Your task to perform on an android device: open a bookmark in the chrome app Image 0: 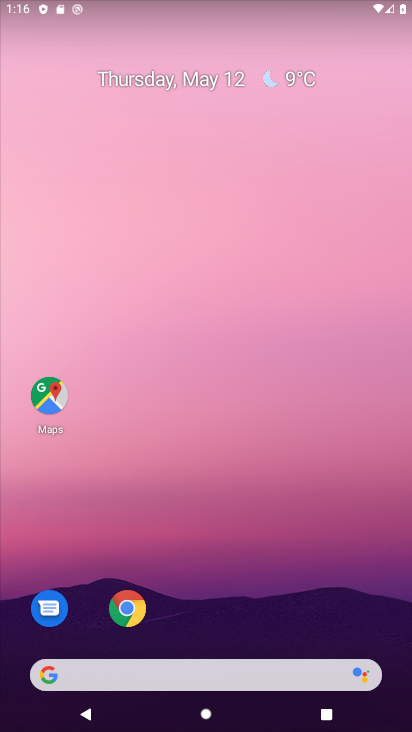
Step 0: drag from (172, 70) to (137, 326)
Your task to perform on an android device: open a bookmark in the chrome app Image 1: 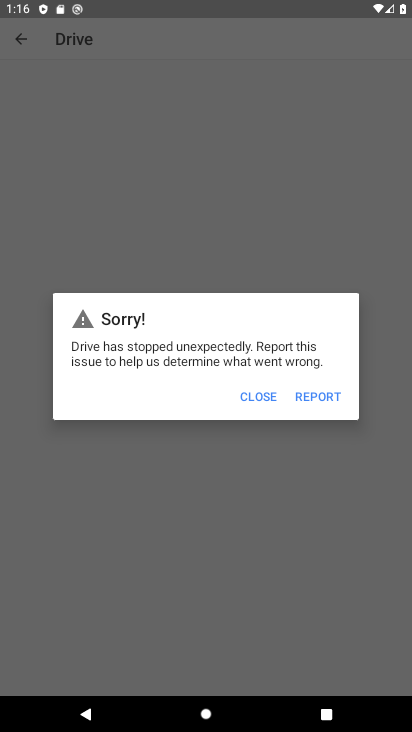
Step 1: press home button
Your task to perform on an android device: open a bookmark in the chrome app Image 2: 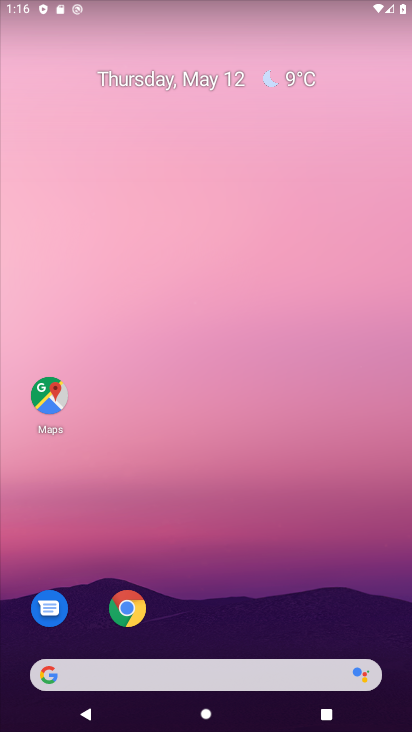
Step 2: click (146, 609)
Your task to perform on an android device: open a bookmark in the chrome app Image 3: 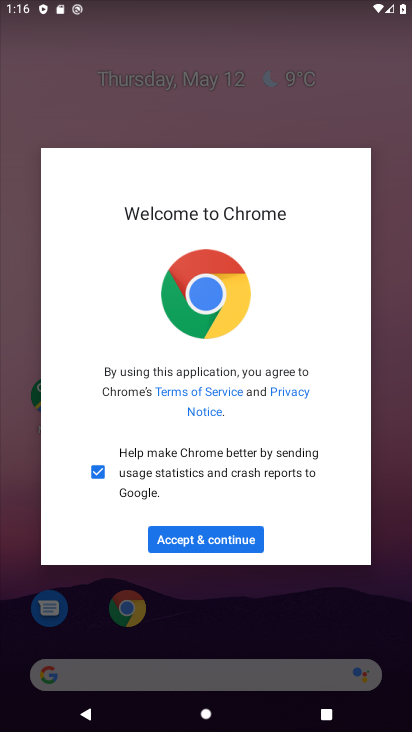
Step 3: click (228, 532)
Your task to perform on an android device: open a bookmark in the chrome app Image 4: 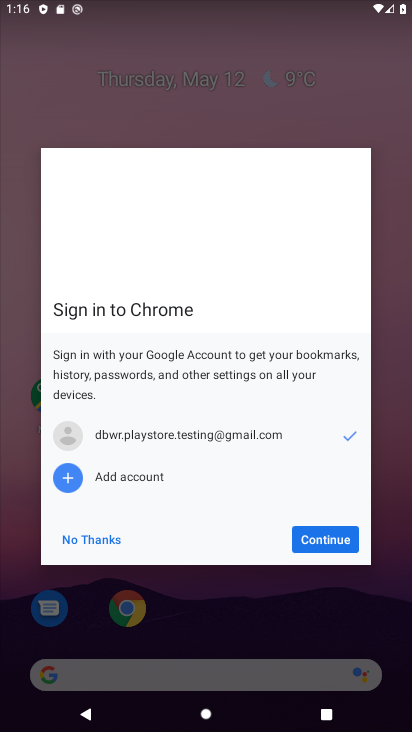
Step 4: click (320, 542)
Your task to perform on an android device: open a bookmark in the chrome app Image 5: 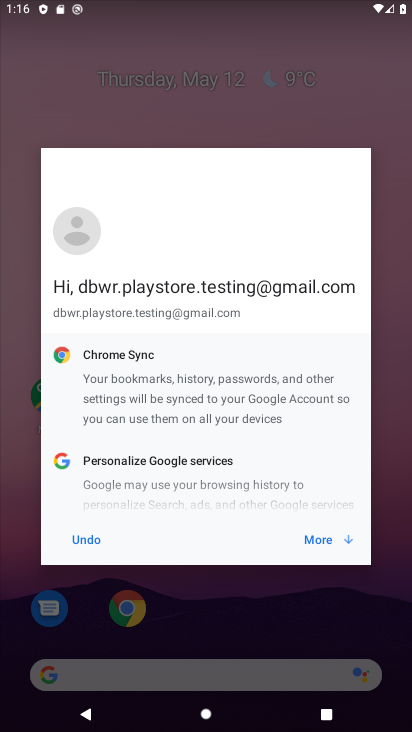
Step 5: click (320, 542)
Your task to perform on an android device: open a bookmark in the chrome app Image 6: 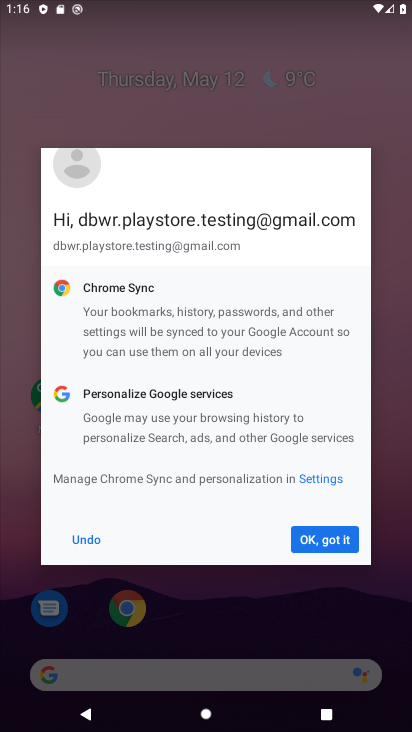
Step 6: click (320, 542)
Your task to perform on an android device: open a bookmark in the chrome app Image 7: 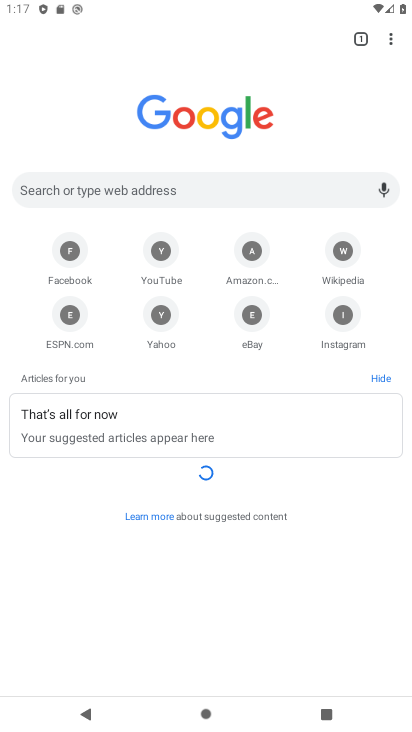
Step 7: click (388, 38)
Your task to perform on an android device: open a bookmark in the chrome app Image 8: 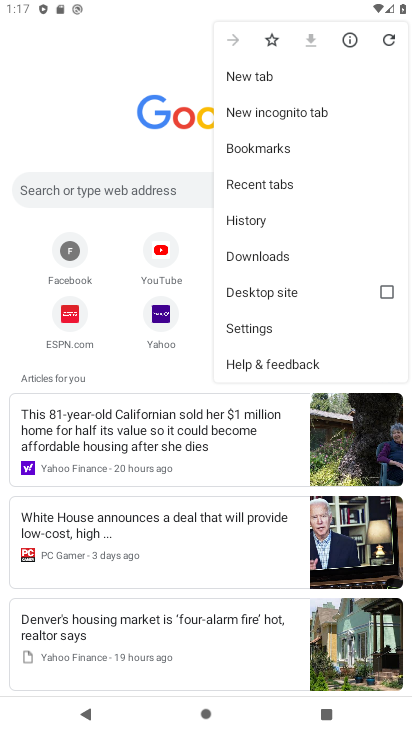
Step 8: click (245, 145)
Your task to perform on an android device: open a bookmark in the chrome app Image 9: 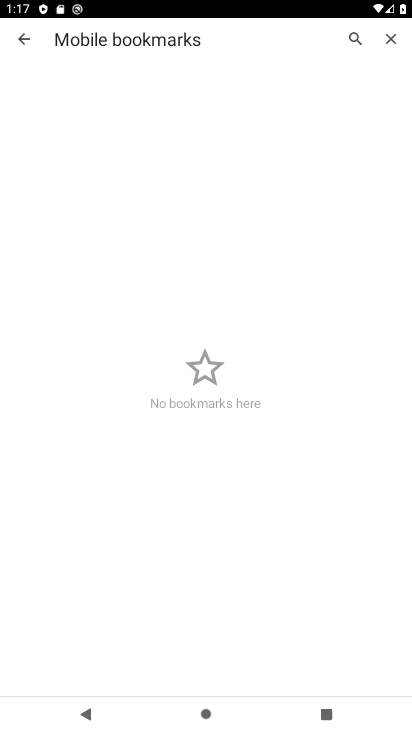
Step 9: task complete